Your task to perform on an android device: snooze an email in the gmail app Image 0: 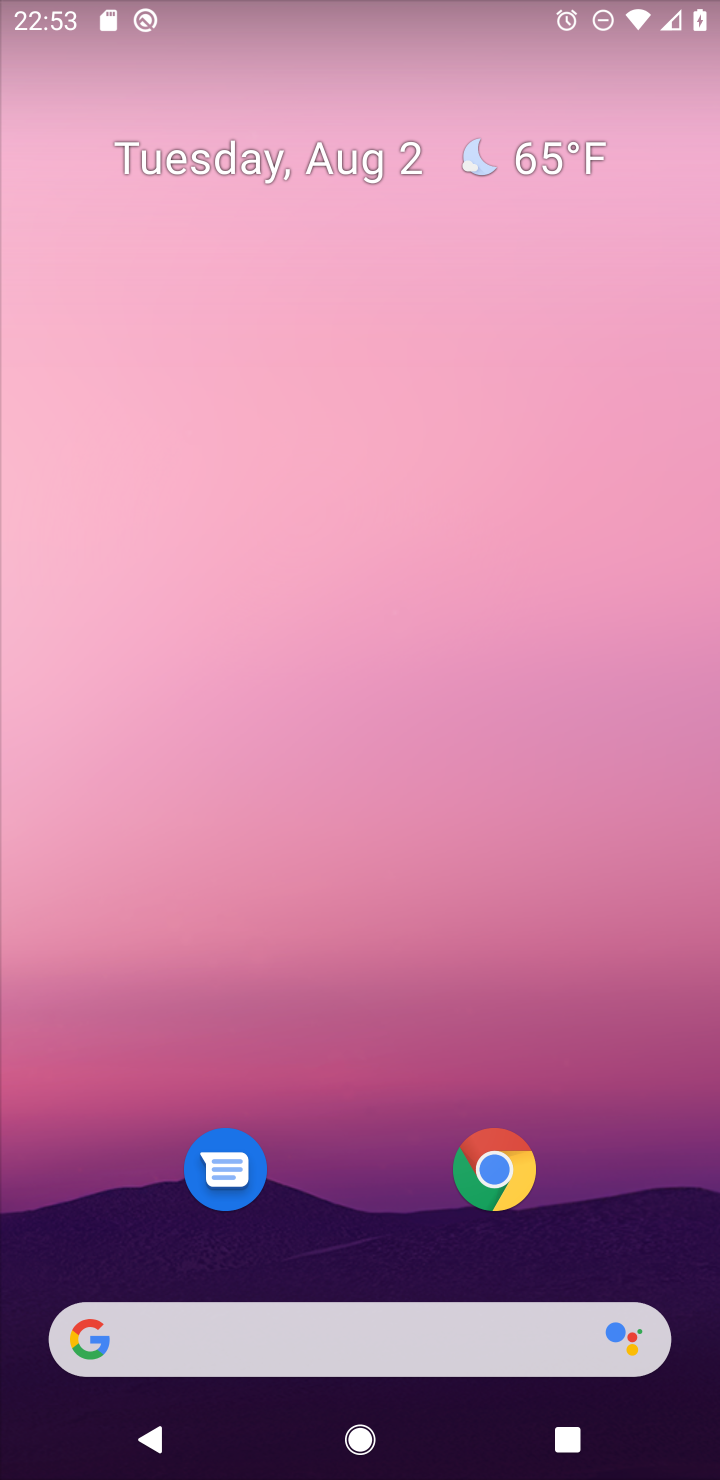
Step 0: drag from (342, 674) to (342, 34)
Your task to perform on an android device: snooze an email in the gmail app Image 1: 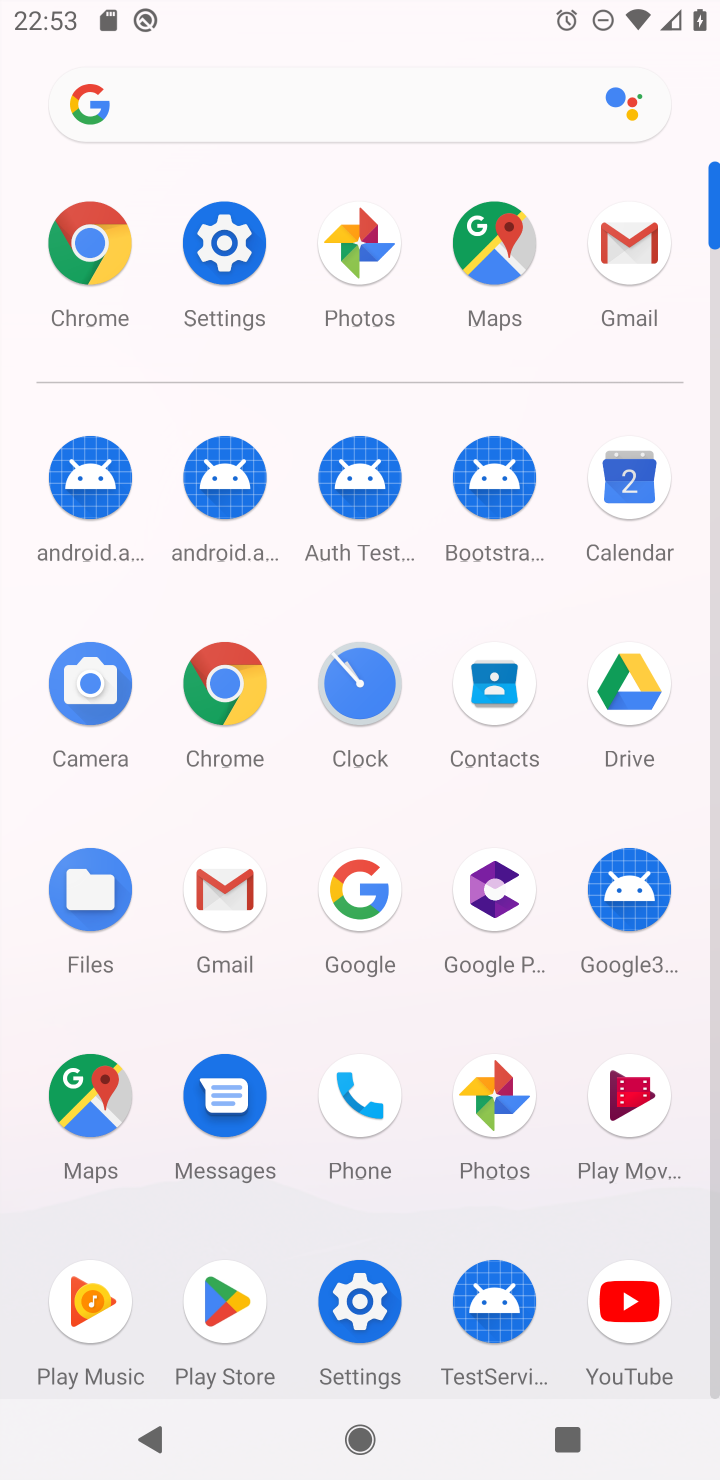
Step 1: click (218, 884)
Your task to perform on an android device: snooze an email in the gmail app Image 2: 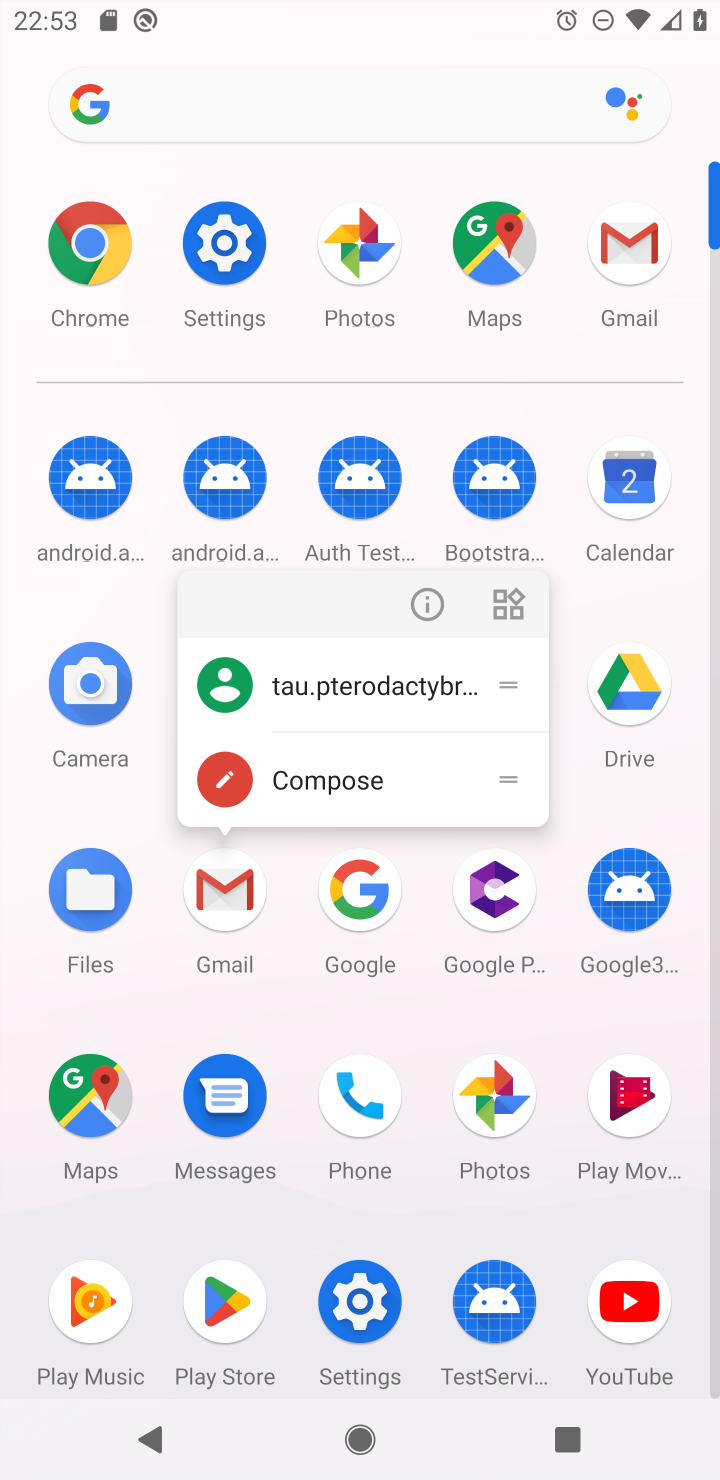
Step 2: click (221, 920)
Your task to perform on an android device: snooze an email in the gmail app Image 3: 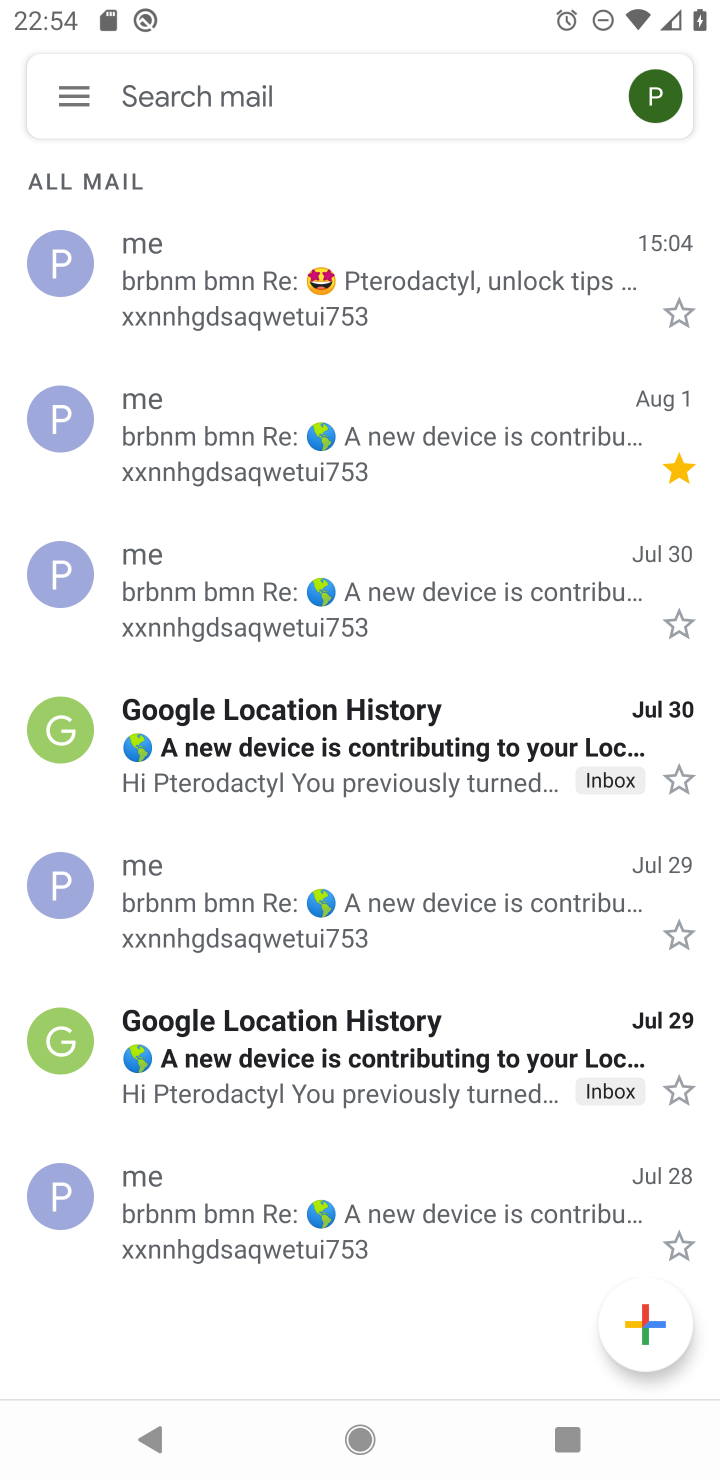
Step 3: click (373, 298)
Your task to perform on an android device: snooze an email in the gmail app Image 4: 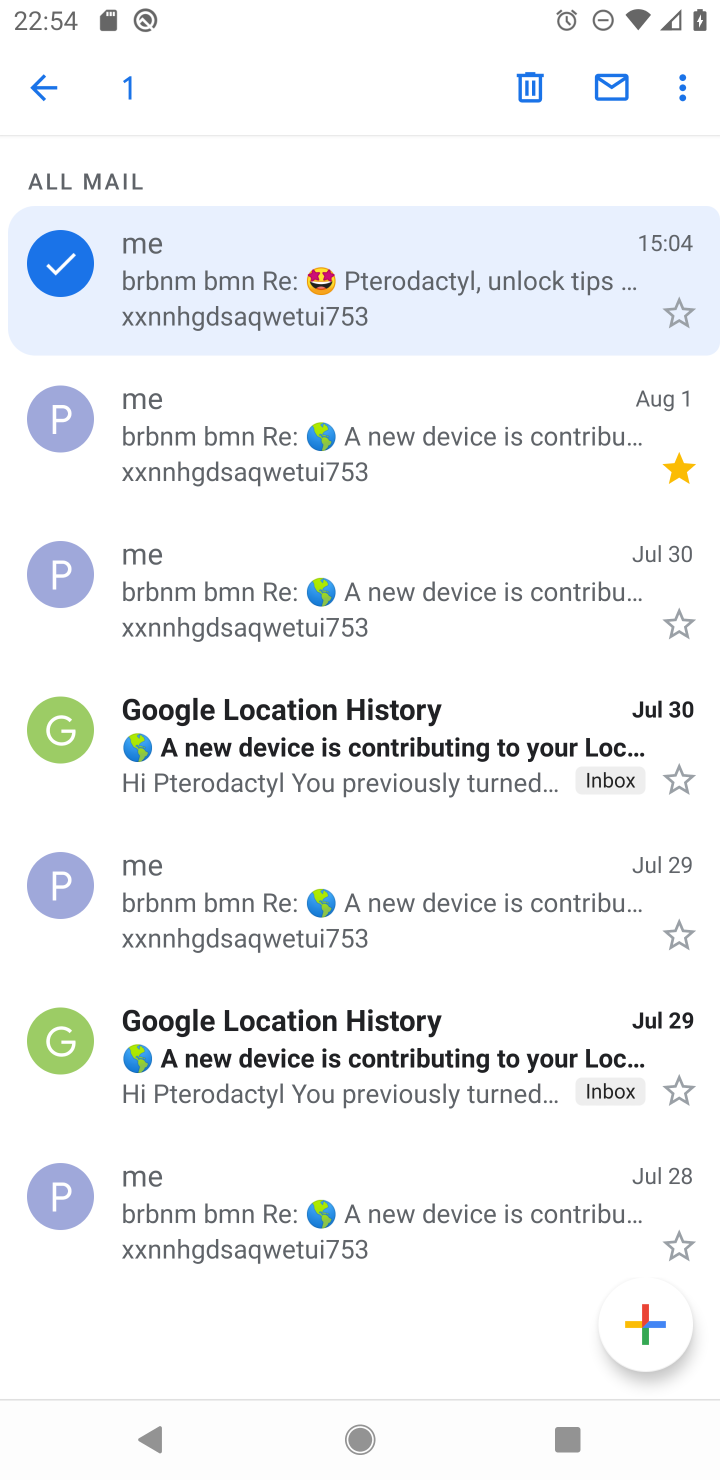
Step 4: click (684, 97)
Your task to perform on an android device: snooze an email in the gmail app Image 5: 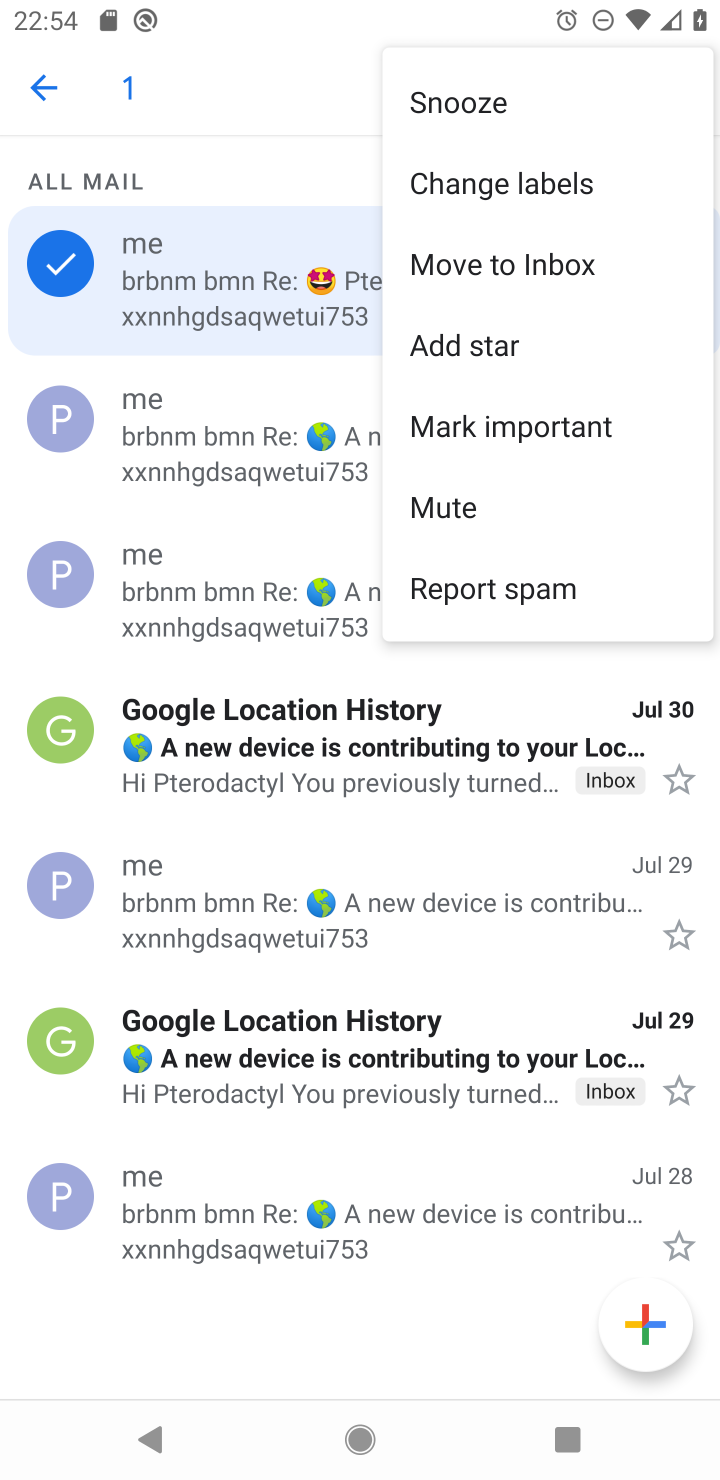
Step 5: click (473, 104)
Your task to perform on an android device: snooze an email in the gmail app Image 6: 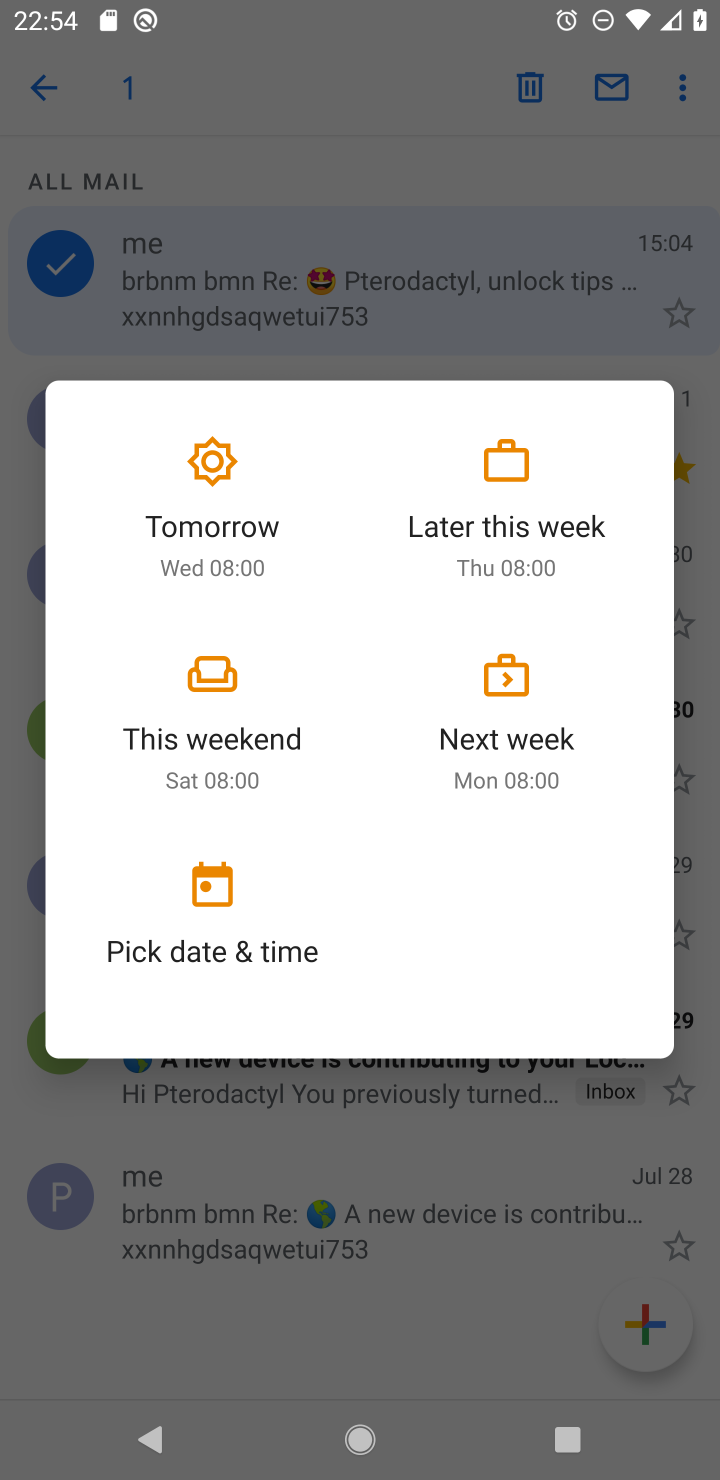
Step 6: click (234, 511)
Your task to perform on an android device: snooze an email in the gmail app Image 7: 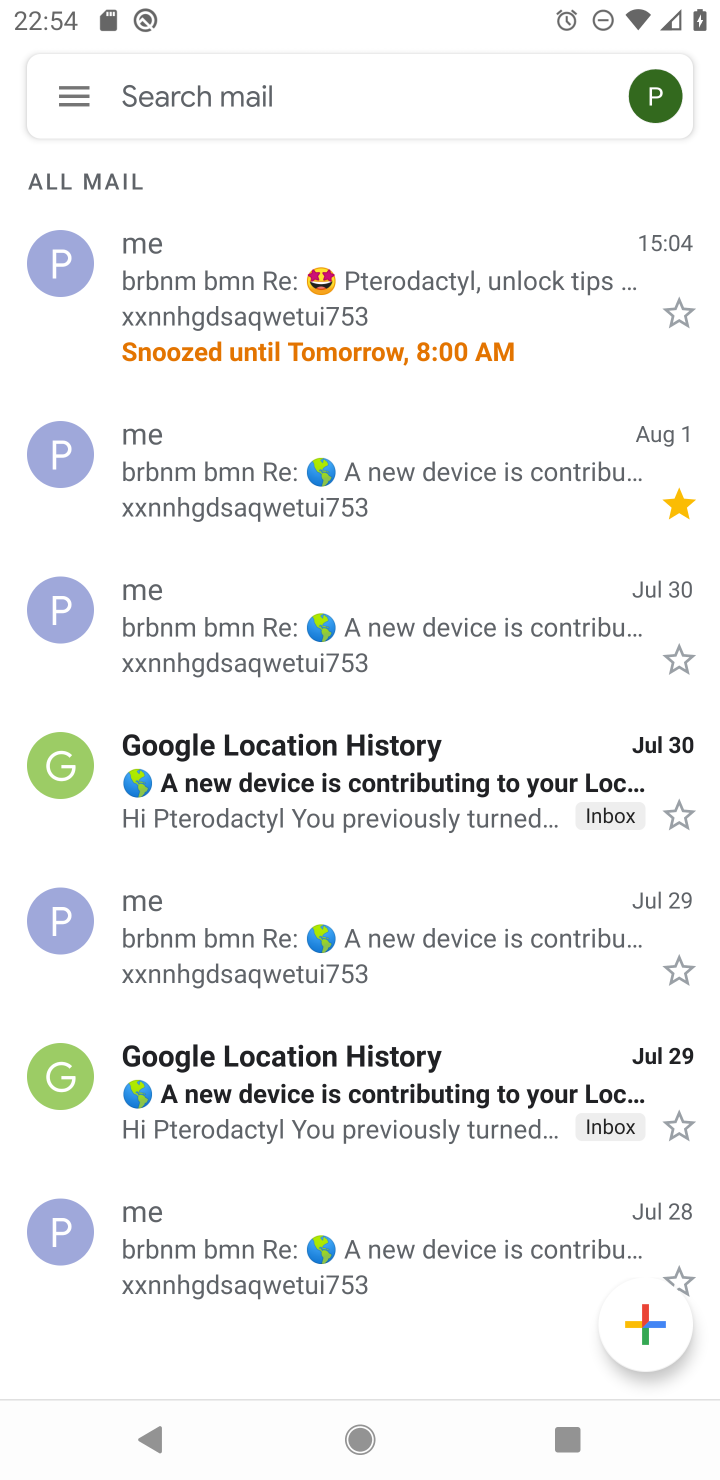
Step 7: task complete